Your task to perform on an android device: change timer sound Image 0: 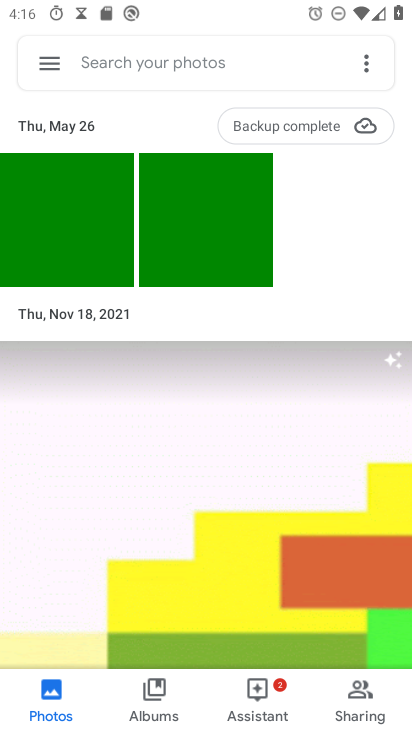
Step 0: press home button
Your task to perform on an android device: change timer sound Image 1: 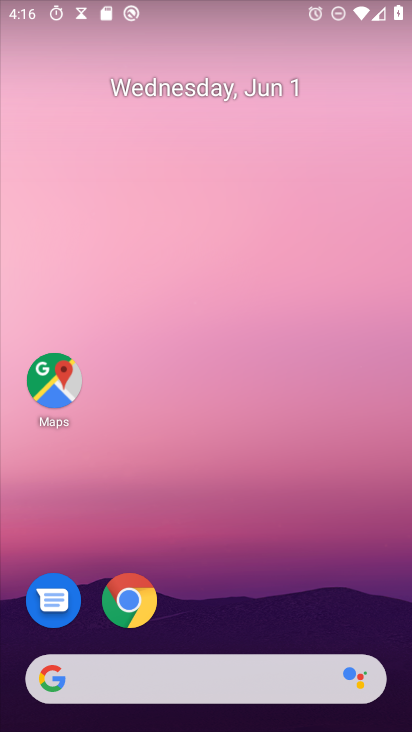
Step 1: drag from (218, 632) to (217, 150)
Your task to perform on an android device: change timer sound Image 2: 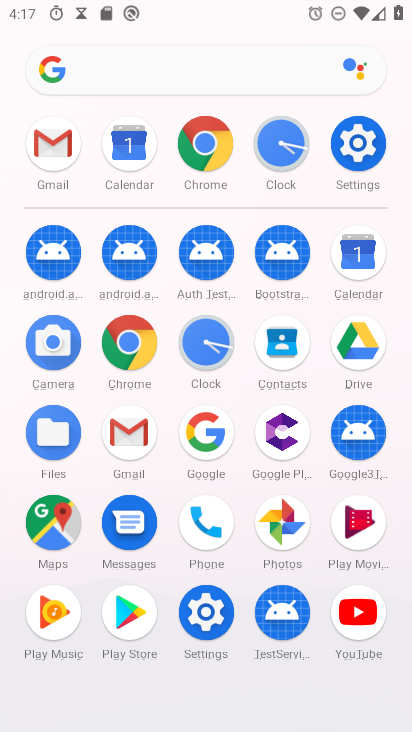
Step 2: click (282, 149)
Your task to perform on an android device: change timer sound Image 3: 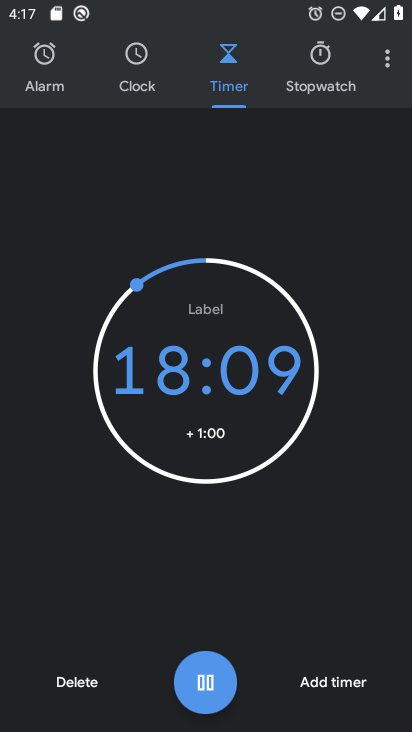
Step 3: click (387, 67)
Your task to perform on an android device: change timer sound Image 4: 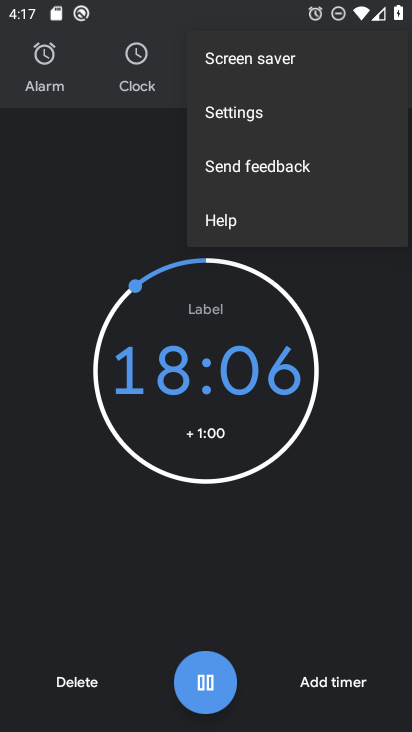
Step 4: click (240, 113)
Your task to perform on an android device: change timer sound Image 5: 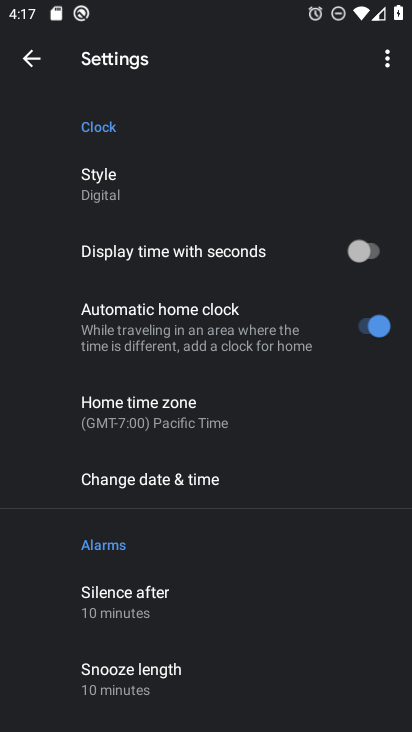
Step 5: drag from (174, 626) to (190, 242)
Your task to perform on an android device: change timer sound Image 6: 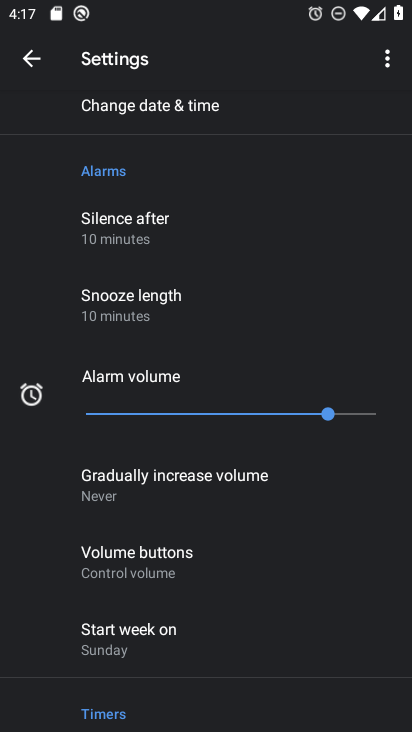
Step 6: drag from (171, 671) to (215, 474)
Your task to perform on an android device: change timer sound Image 7: 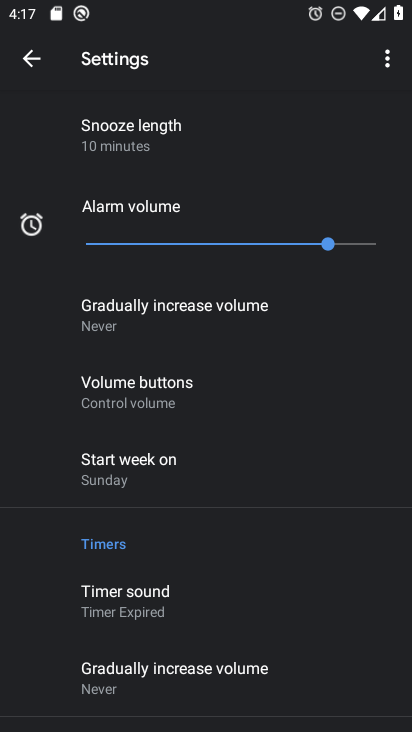
Step 7: click (132, 606)
Your task to perform on an android device: change timer sound Image 8: 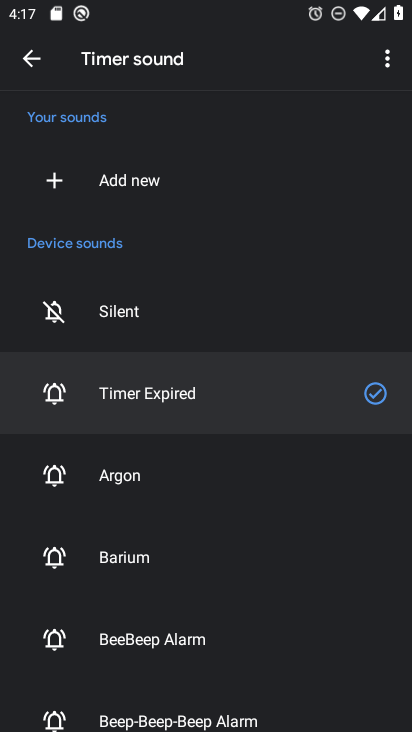
Step 8: click (100, 487)
Your task to perform on an android device: change timer sound Image 9: 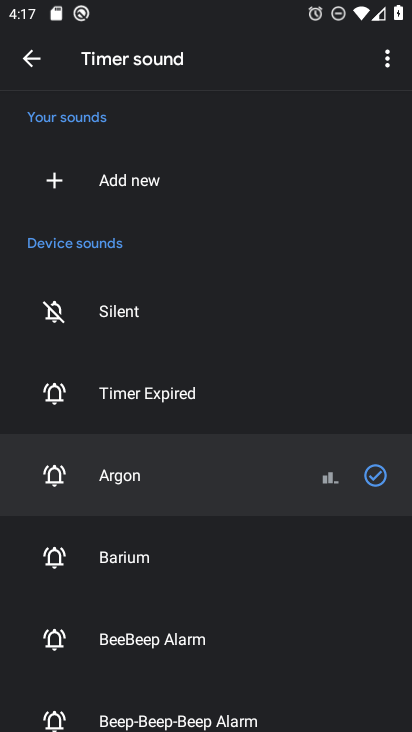
Step 9: task complete